Your task to perform on an android device: change text size in settings app Image 0: 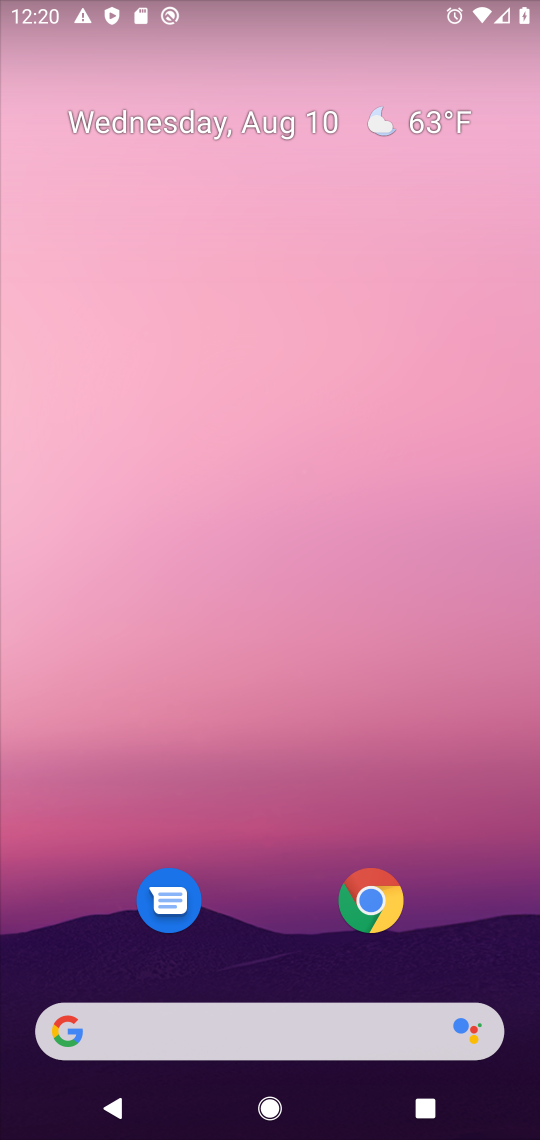
Step 0: drag from (273, 890) to (251, 63)
Your task to perform on an android device: change text size in settings app Image 1: 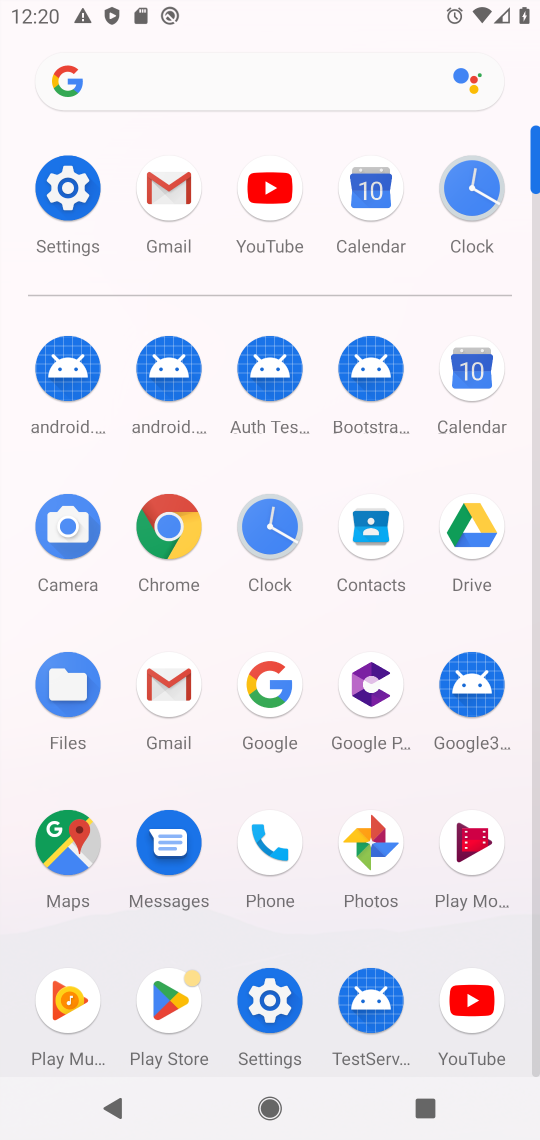
Step 1: click (74, 186)
Your task to perform on an android device: change text size in settings app Image 2: 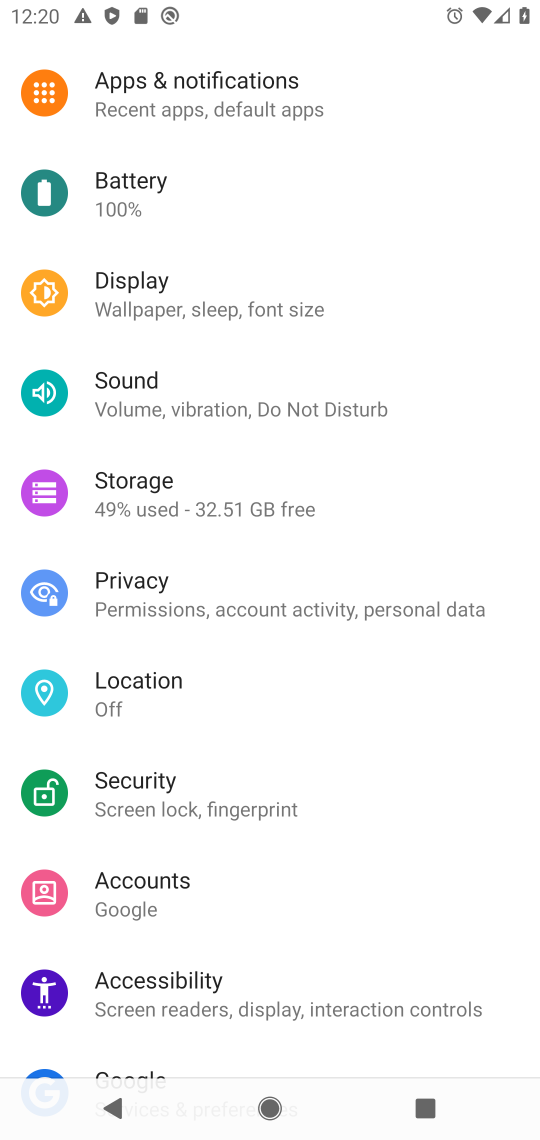
Step 2: click (265, 298)
Your task to perform on an android device: change text size in settings app Image 3: 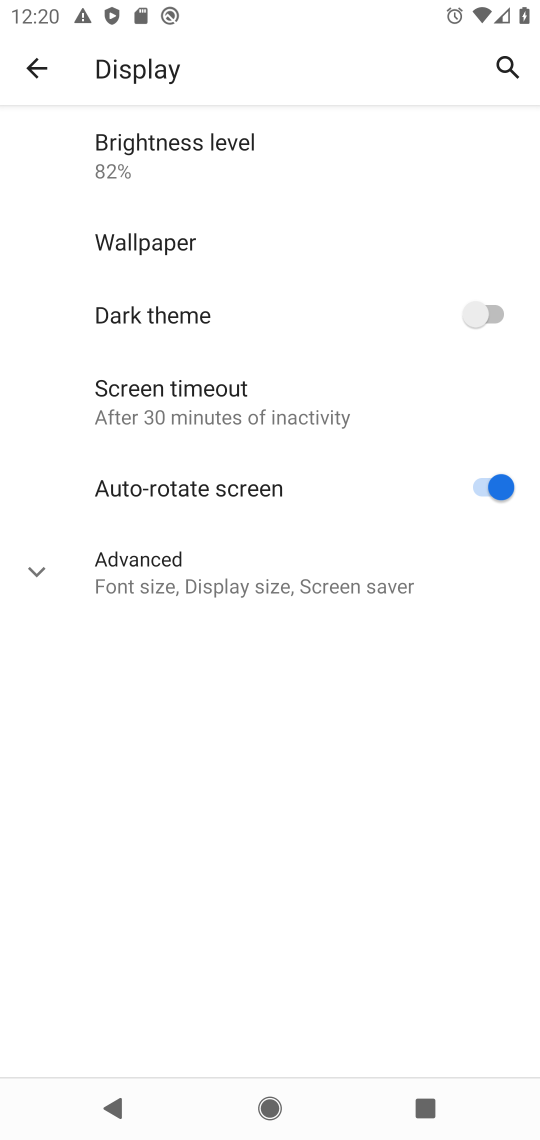
Step 3: click (40, 570)
Your task to perform on an android device: change text size in settings app Image 4: 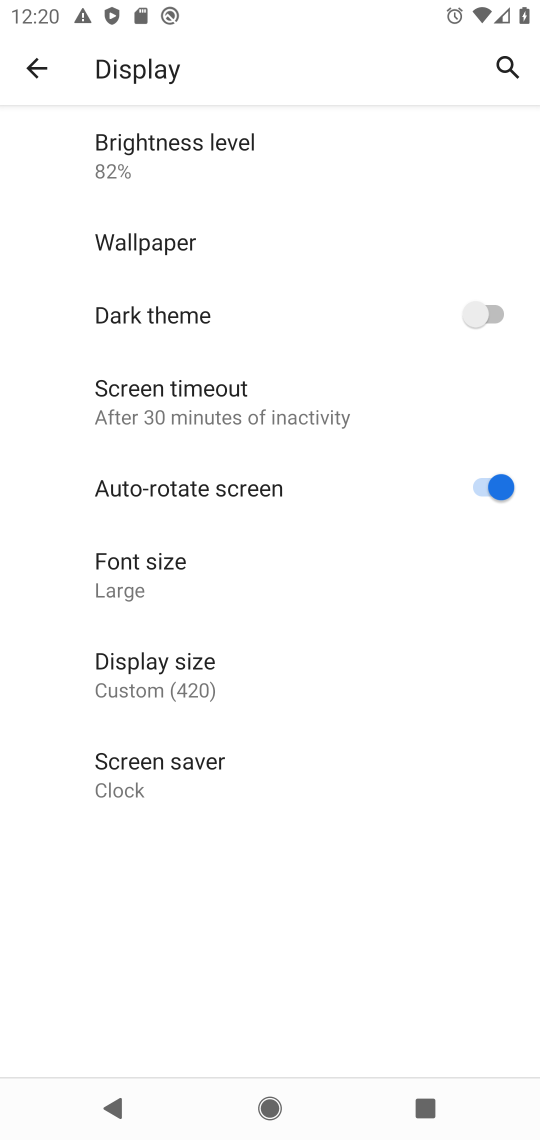
Step 4: click (141, 567)
Your task to perform on an android device: change text size in settings app Image 5: 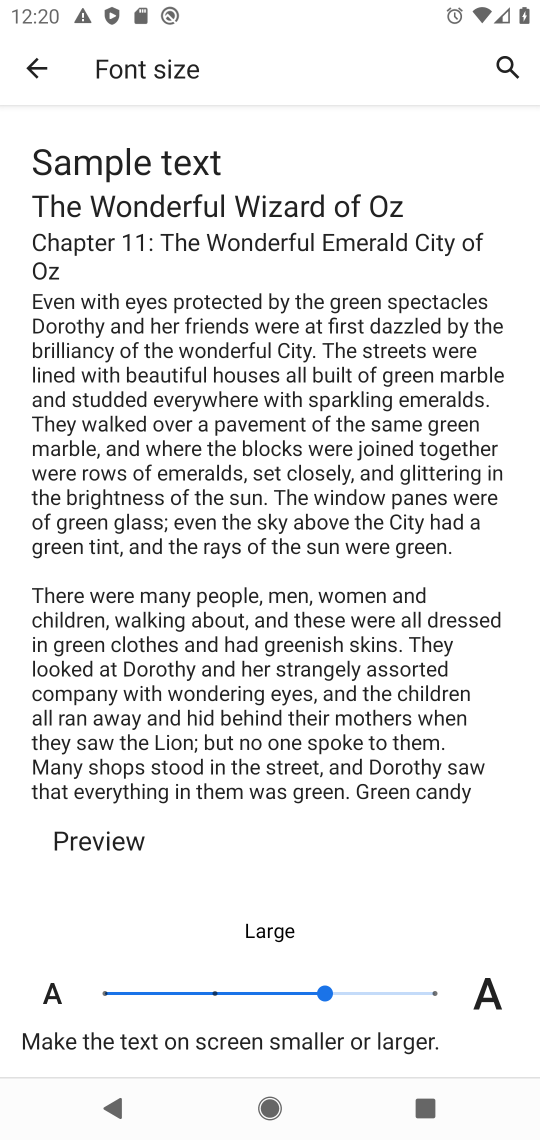
Step 5: click (217, 989)
Your task to perform on an android device: change text size in settings app Image 6: 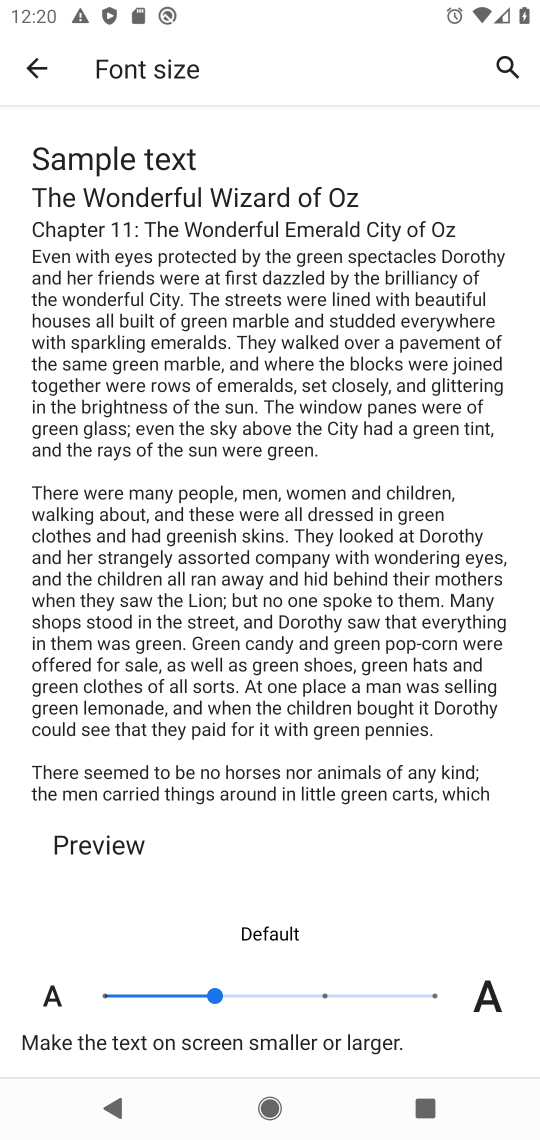
Step 6: task complete